Your task to perform on an android device: Is it going to rain today? Image 0: 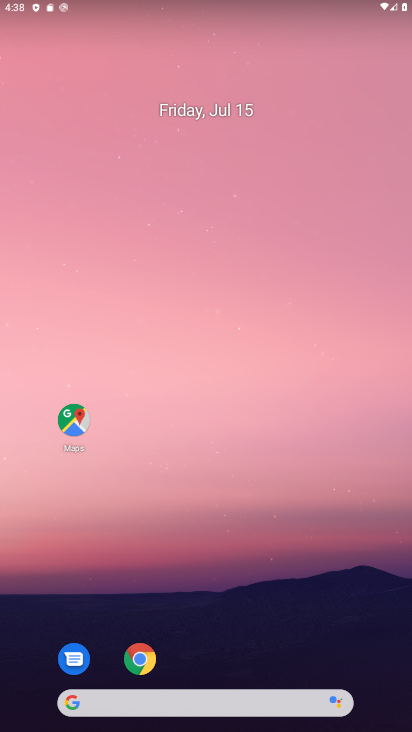
Step 0: drag from (305, 630) to (203, 4)
Your task to perform on an android device: Is it going to rain today? Image 1: 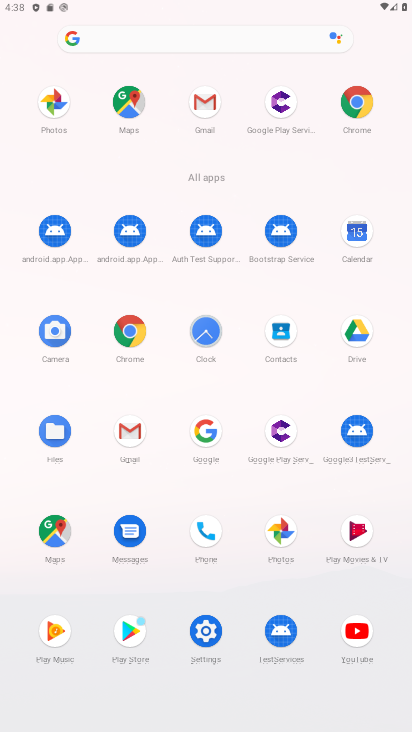
Step 1: click (352, 142)
Your task to perform on an android device: Is it going to rain today? Image 2: 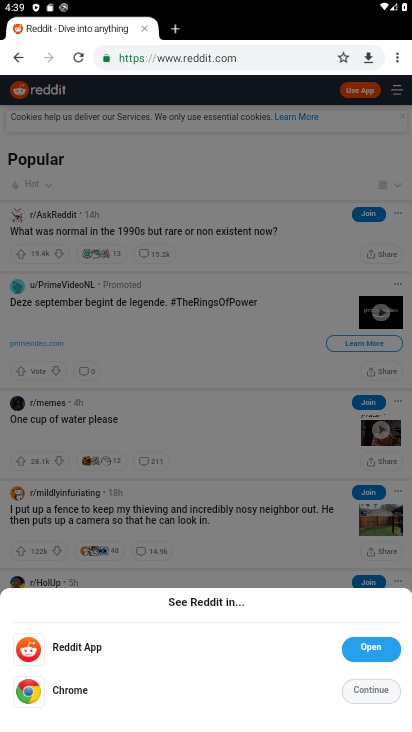
Step 2: click (247, 57)
Your task to perform on an android device: Is it going to rain today? Image 3: 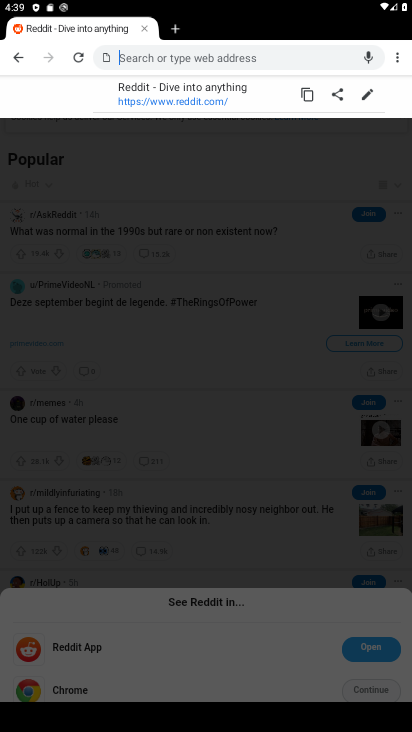
Step 3: type "Is it going to rain today?"
Your task to perform on an android device: Is it going to rain today? Image 4: 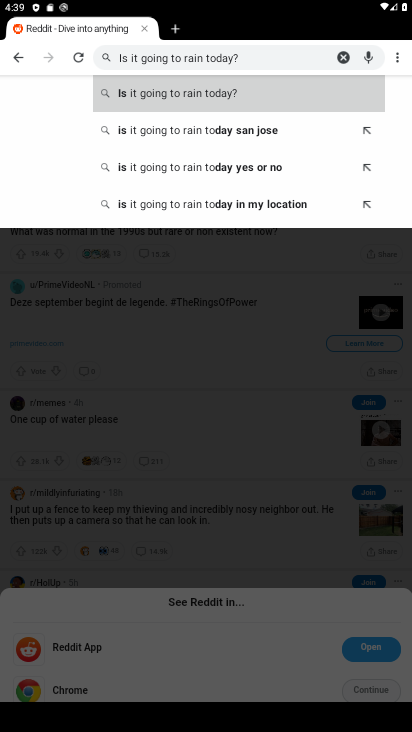
Step 4: click (226, 97)
Your task to perform on an android device: Is it going to rain today? Image 5: 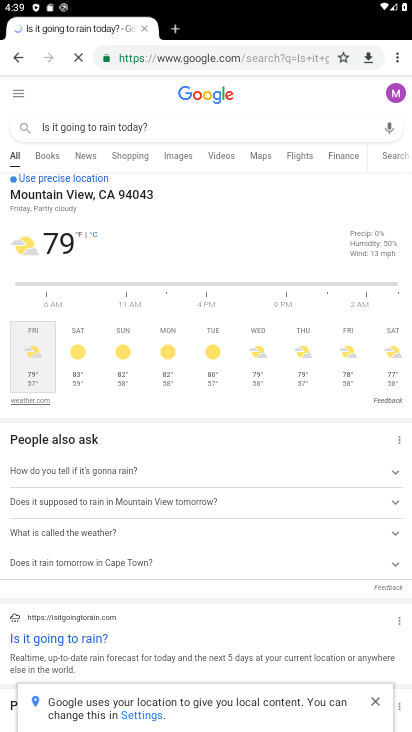
Step 5: task complete